Your task to perform on an android device: open app "Etsy: Buy & Sell Unique Items" (install if not already installed) Image 0: 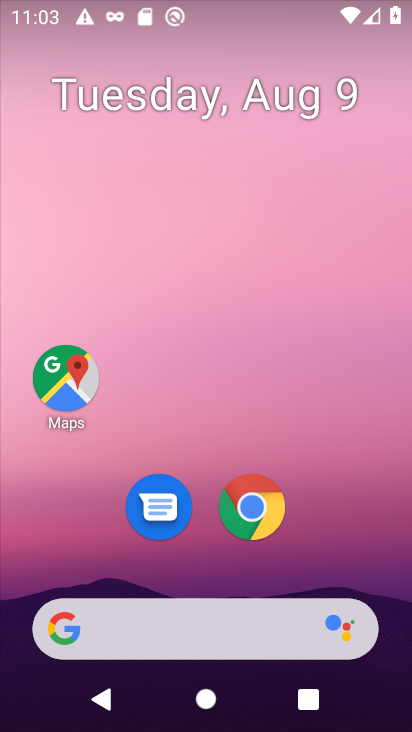
Step 0: drag from (163, 636) to (179, 102)
Your task to perform on an android device: open app "Etsy: Buy & Sell Unique Items" (install if not already installed) Image 1: 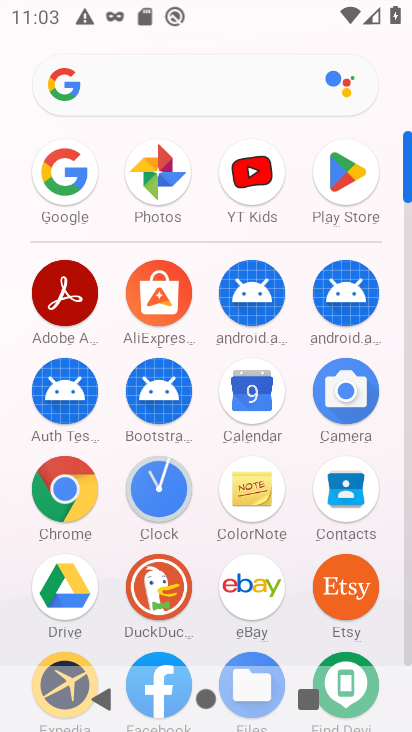
Step 1: click (345, 172)
Your task to perform on an android device: open app "Etsy: Buy & Sell Unique Items" (install if not already installed) Image 2: 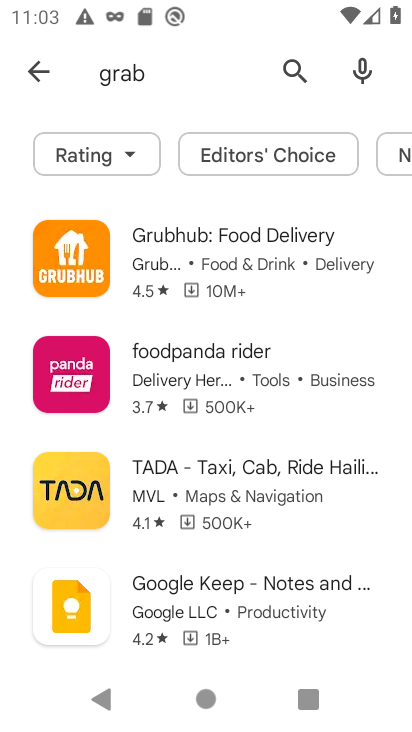
Step 2: click (293, 67)
Your task to perform on an android device: open app "Etsy: Buy & Sell Unique Items" (install if not already installed) Image 3: 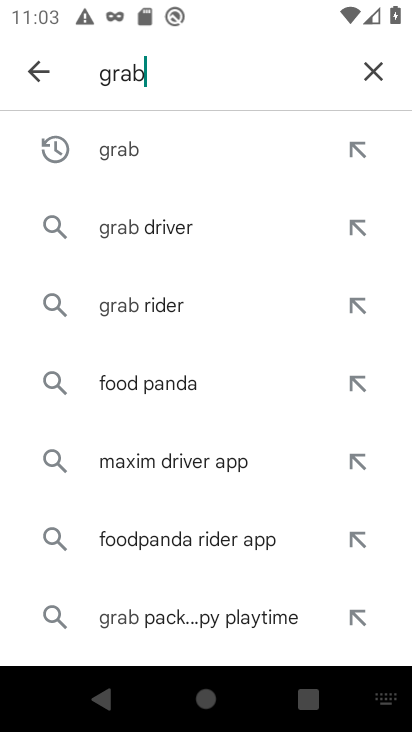
Step 3: click (375, 73)
Your task to perform on an android device: open app "Etsy: Buy & Sell Unique Items" (install if not already installed) Image 4: 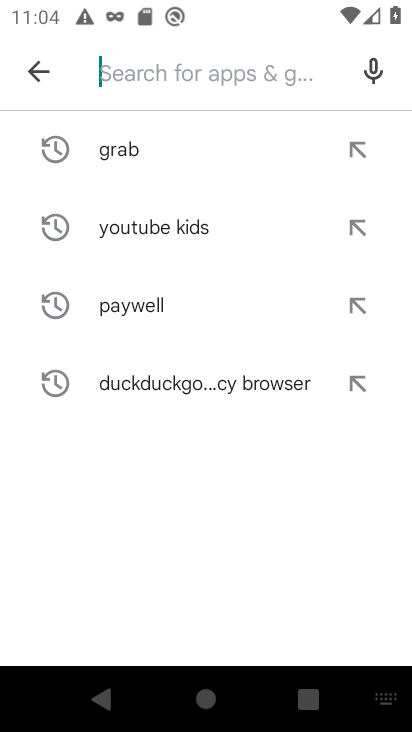
Step 4: type "Etsy: Buy & Sell Unique Items"
Your task to perform on an android device: open app "Etsy: Buy & Sell Unique Items" (install if not already installed) Image 5: 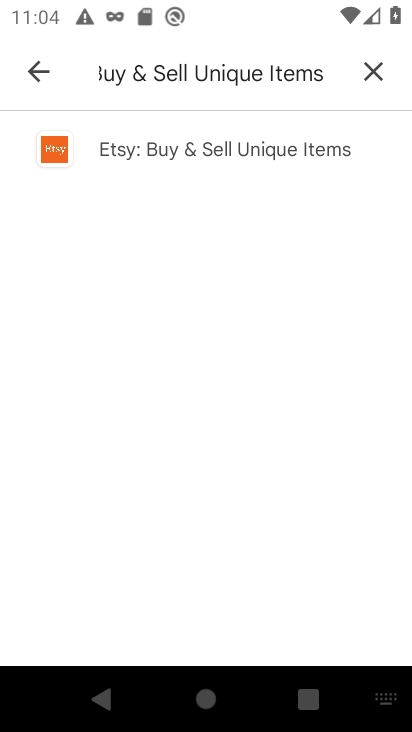
Step 5: click (230, 154)
Your task to perform on an android device: open app "Etsy: Buy & Sell Unique Items" (install if not already installed) Image 6: 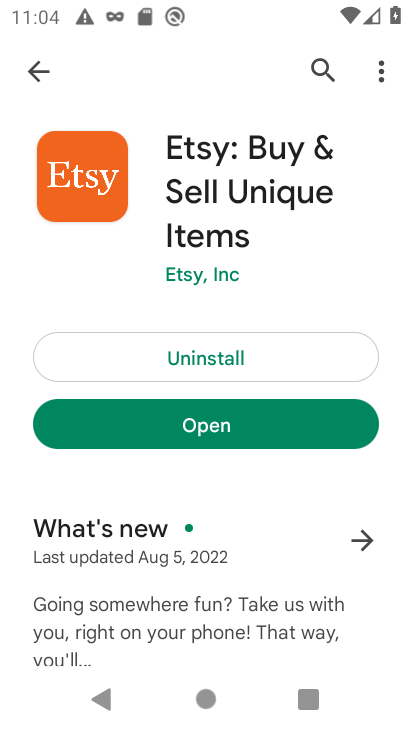
Step 6: click (229, 437)
Your task to perform on an android device: open app "Etsy: Buy & Sell Unique Items" (install if not already installed) Image 7: 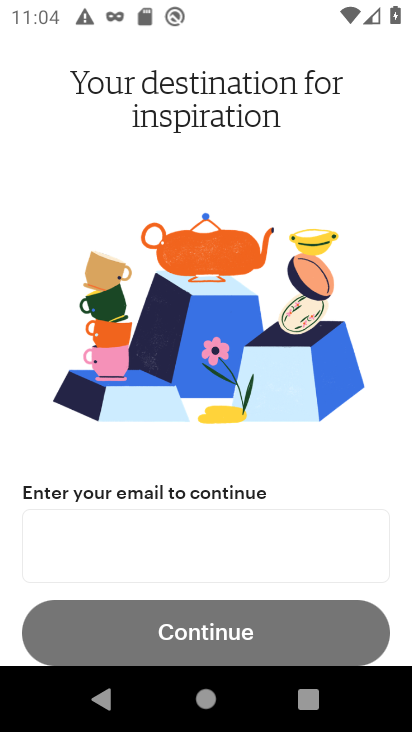
Step 7: task complete